Your task to perform on an android device: star an email in the gmail app Image 0: 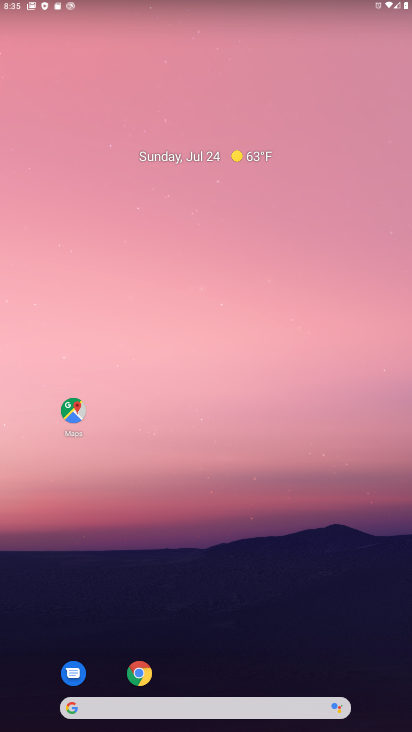
Step 0: drag from (213, 695) to (226, 26)
Your task to perform on an android device: star an email in the gmail app Image 1: 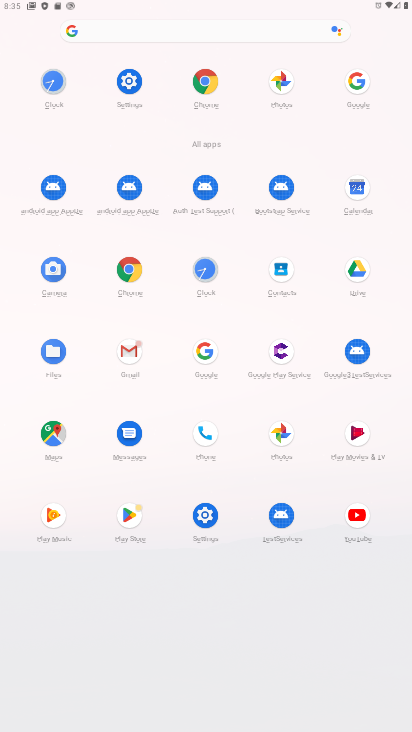
Step 1: click (142, 345)
Your task to perform on an android device: star an email in the gmail app Image 2: 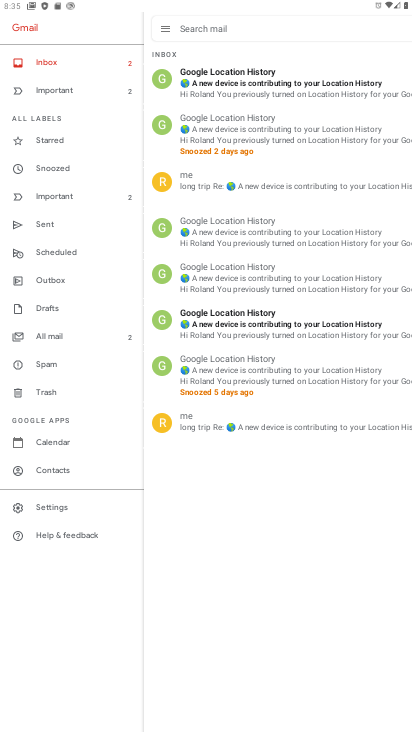
Step 2: click (255, 87)
Your task to perform on an android device: star an email in the gmail app Image 3: 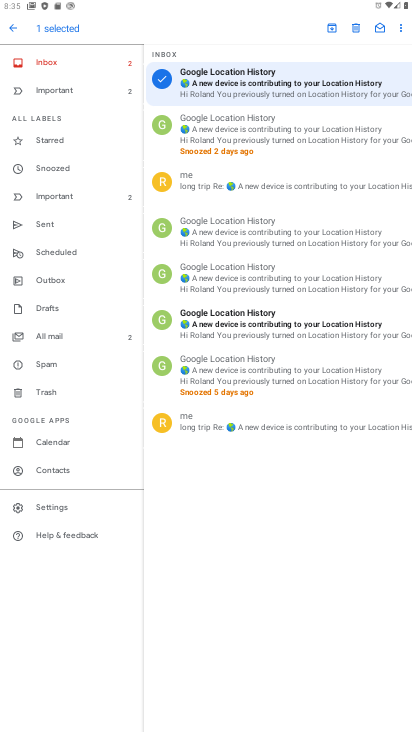
Step 3: click (393, 24)
Your task to perform on an android device: star an email in the gmail app Image 4: 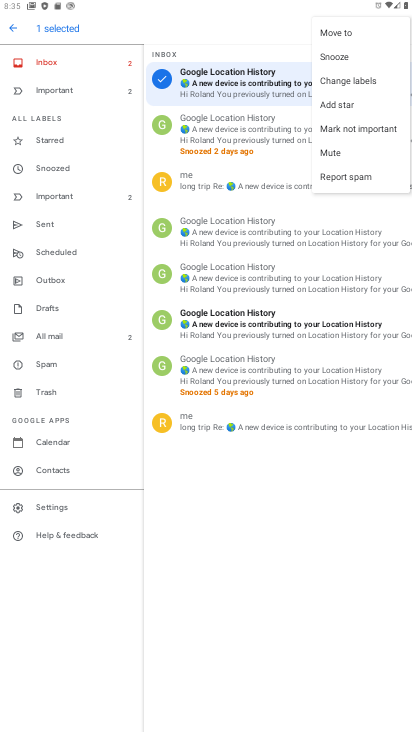
Step 4: click (349, 105)
Your task to perform on an android device: star an email in the gmail app Image 5: 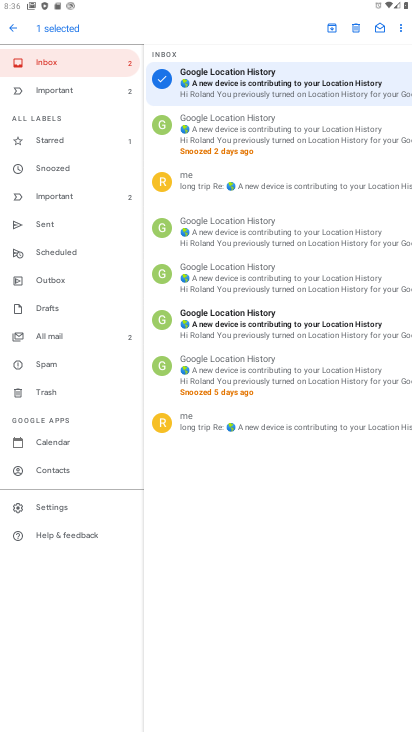
Step 5: task complete